Your task to perform on an android device: Open calendar and show me the third week of next month Image 0: 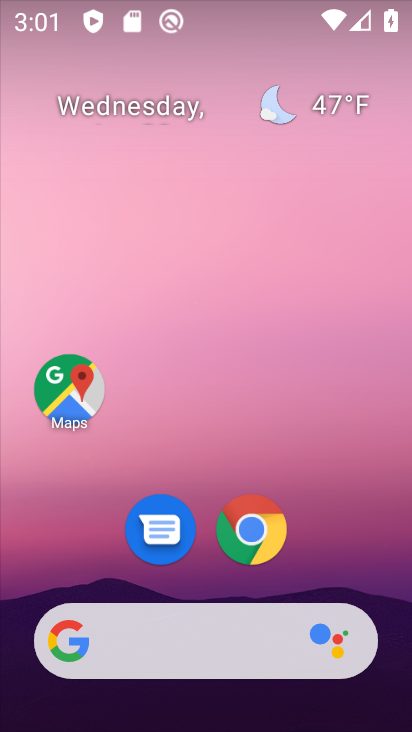
Step 0: drag from (210, 572) to (266, 127)
Your task to perform on an android device: Open calendar and show me the third week of next month Image 1: 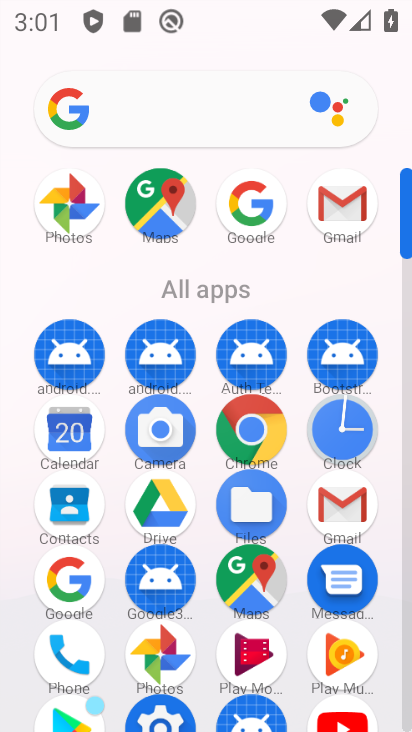
Step 1: click (76, 448)
Your task to perform on an android device: Open calendar and show me the third week of next month Image 2: 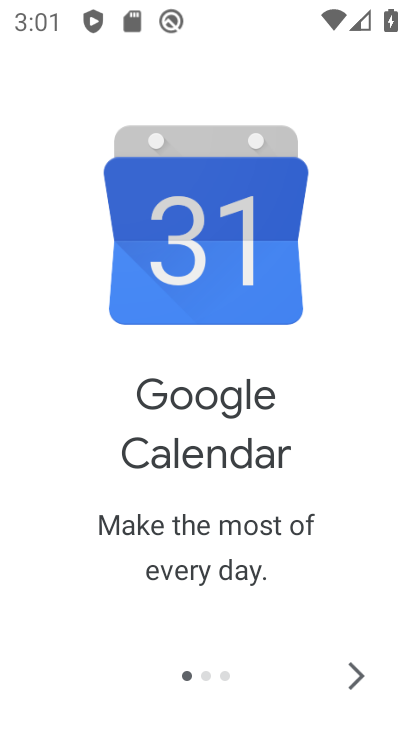
Step 2: click (355, 679)
Your task to perform on an android device: Open calendar and show me the third week of next month Image 3: 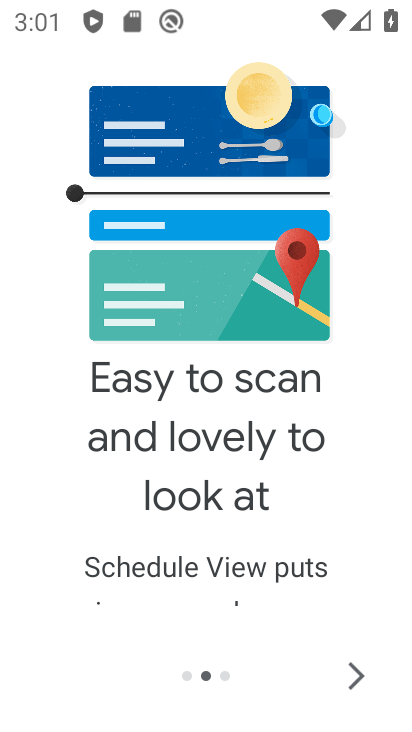
Step 3: click (355, 679)
Your task to perform on an android device: Open calendar and show me the third week of next month Image 4: 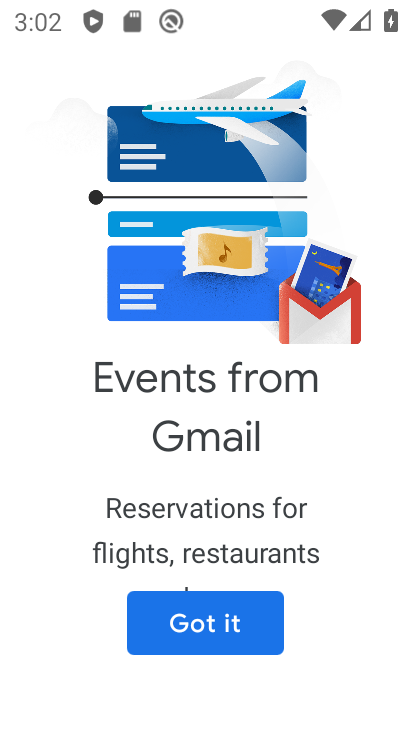
Step 4: click (230, 631)
Your task to perform on an android device: Open calendar and show me the third week of next month Image 5: 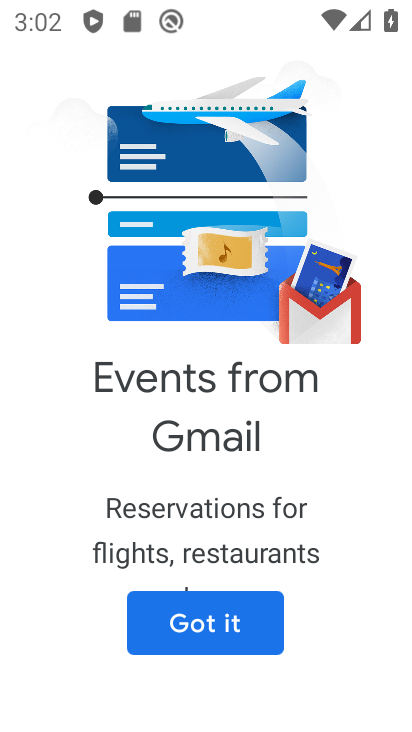
Step 5: click (234, 629)
Your task to perform on an android device: Open calendar and show me the third week of next month Image 6: 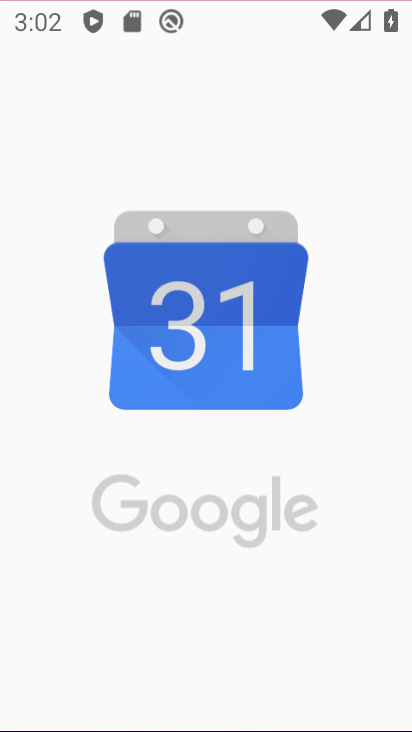
Step 6: click (224, 616)
Your task to perform on an android device: Open calendar and show me the third week of next month Image 7: 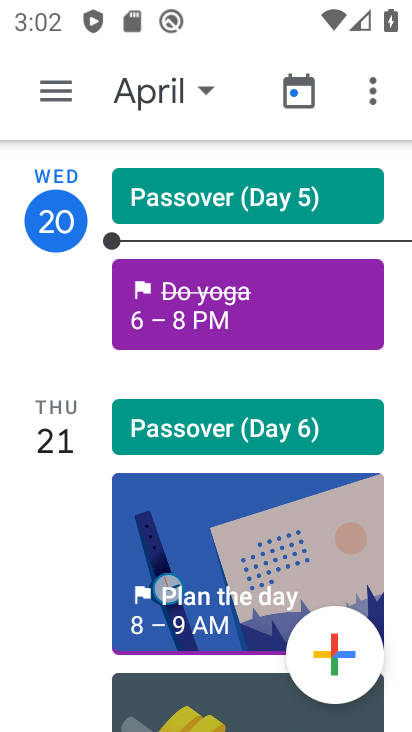
Step 7: click (189, 96)
Your task to perform on an android device: Open calendar and show me the third week of next month Image 8: 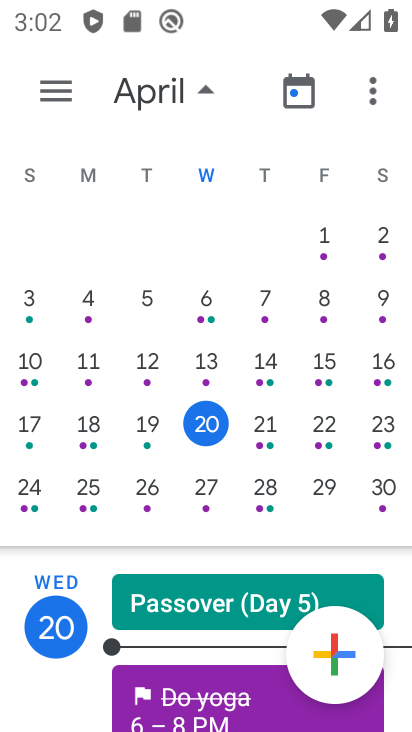
Step 8: drag from (357, 396) to (44, 260)
Your task to perform on an android device: Open calendar and show me the third week of next month Image 9: 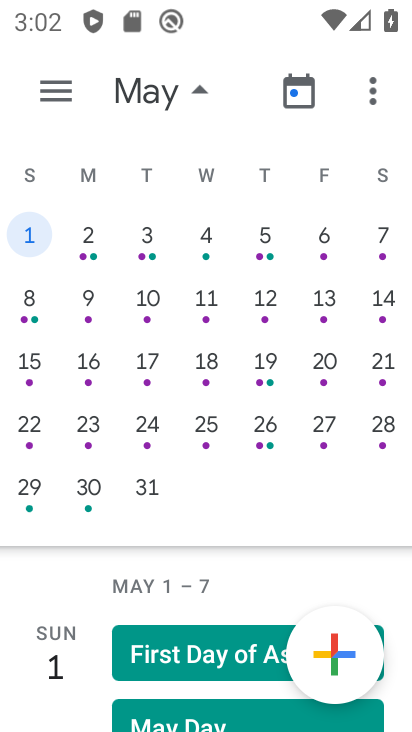
Step 9: click (131, 361)
Your task to perform on an android device: Open calendar and show me the third week of next month Image 10: 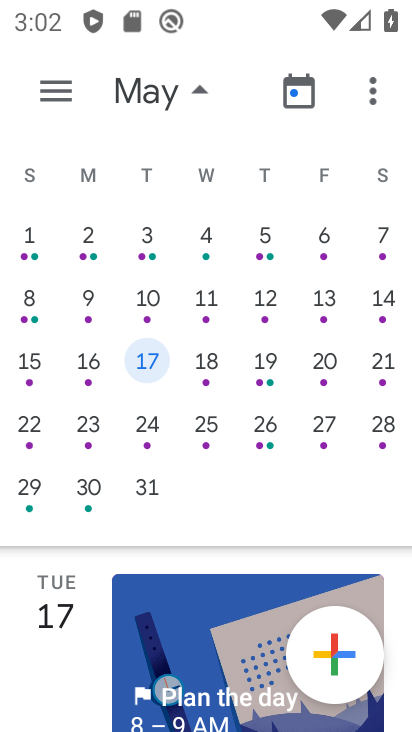
Step 10: task complete